Your task to perform on an android device: change the clock display to analog Image 0: 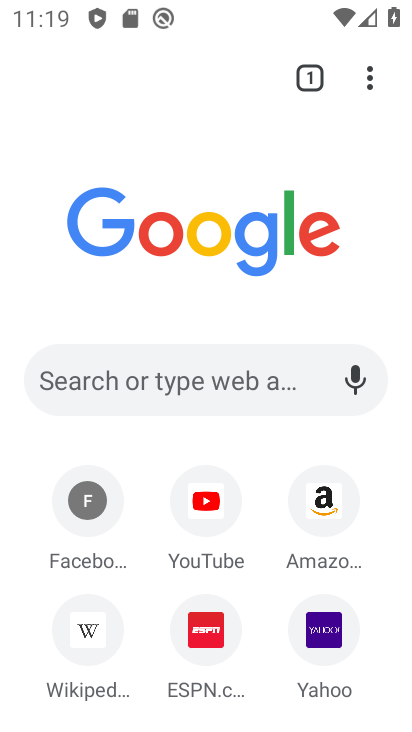
Step 0: press home button
Your task to perform on an android device: change the clock display to analog Image 1: 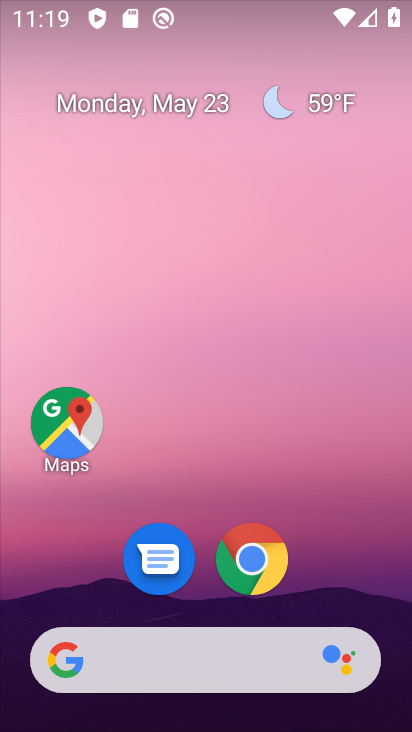
Step 1: drag from (392, 625) to (336, 138)
Your task to perform on an android device: change the clock display to analog Image 2: 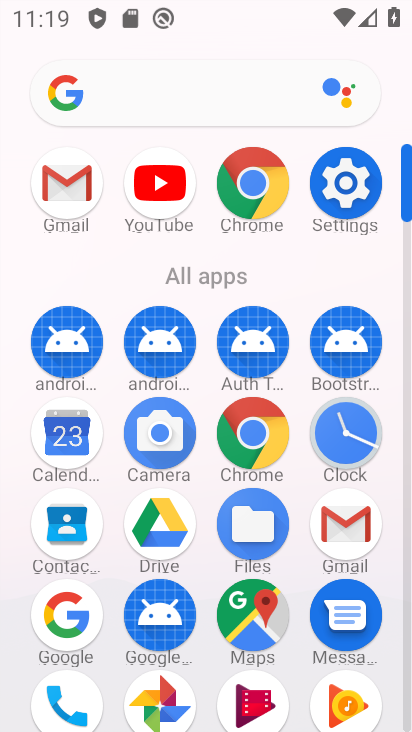
Step 2: click (362, 421)
Your task to perform on an android device: change the clock display to analog Image 3: 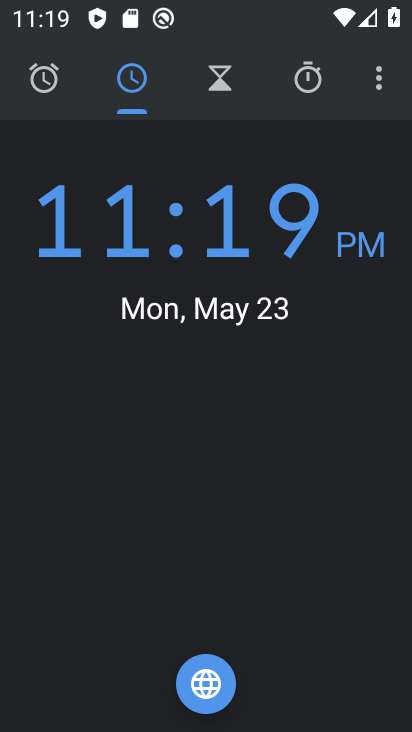
Step 3: click (371, 79)
Your task to perform on an android device: change the clock display to analog Image 4: 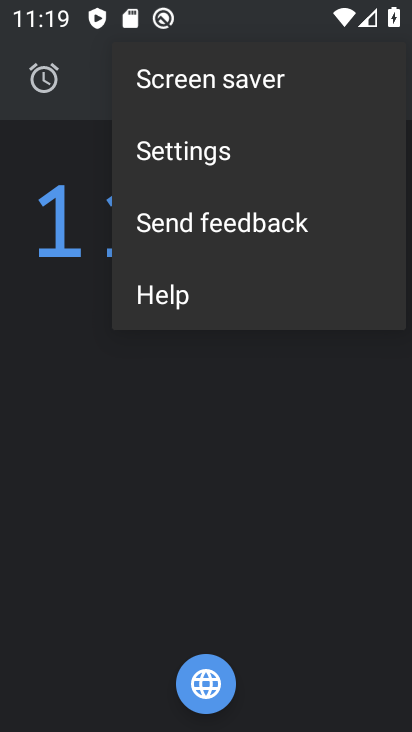
Step 4: click (236, 155)
Your task to perform on an android device: change the clock display to analog Image 5: 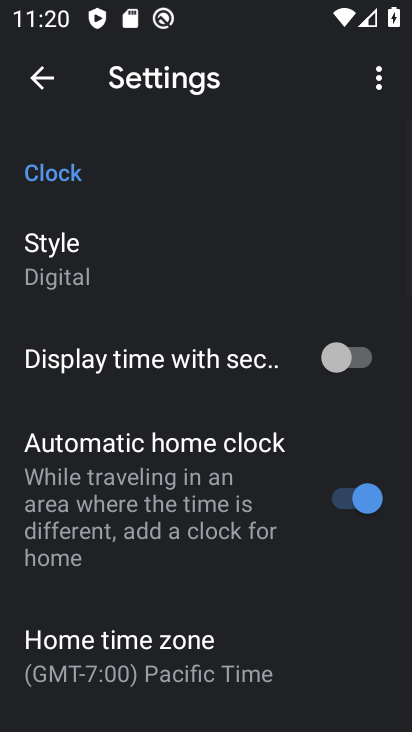
Step 5: click (129, 269)
Your task to perform on an android device: change the clock display to analog Image 6: 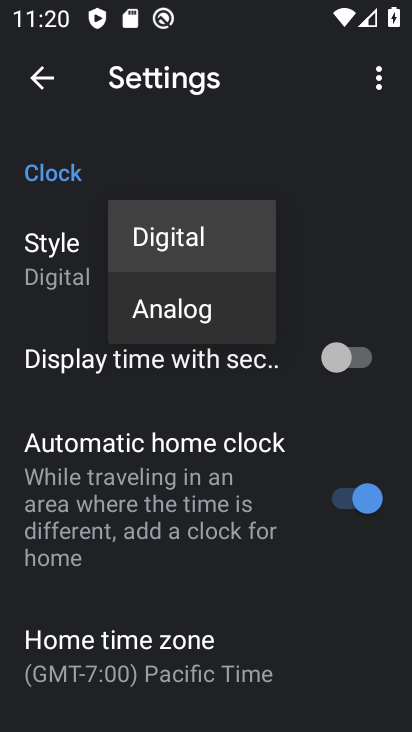
Step 6: click (165, 293)
Your task to perform on an android device: change the clock display to analog Image 7: 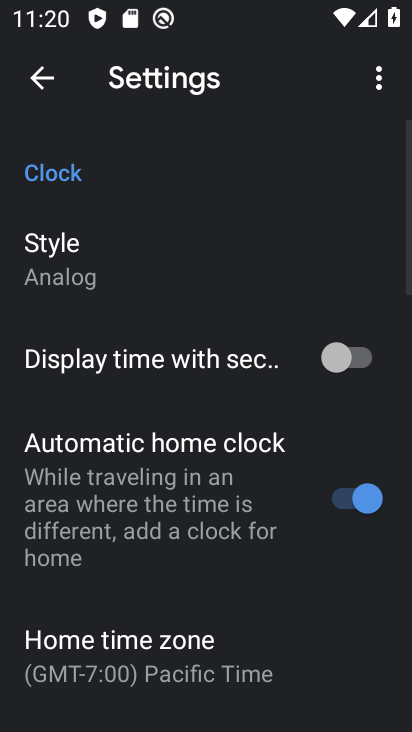
Step 7: task complete